Your task to perform on an android device: install app "ZOOM Cloud Meetings" Image 0: 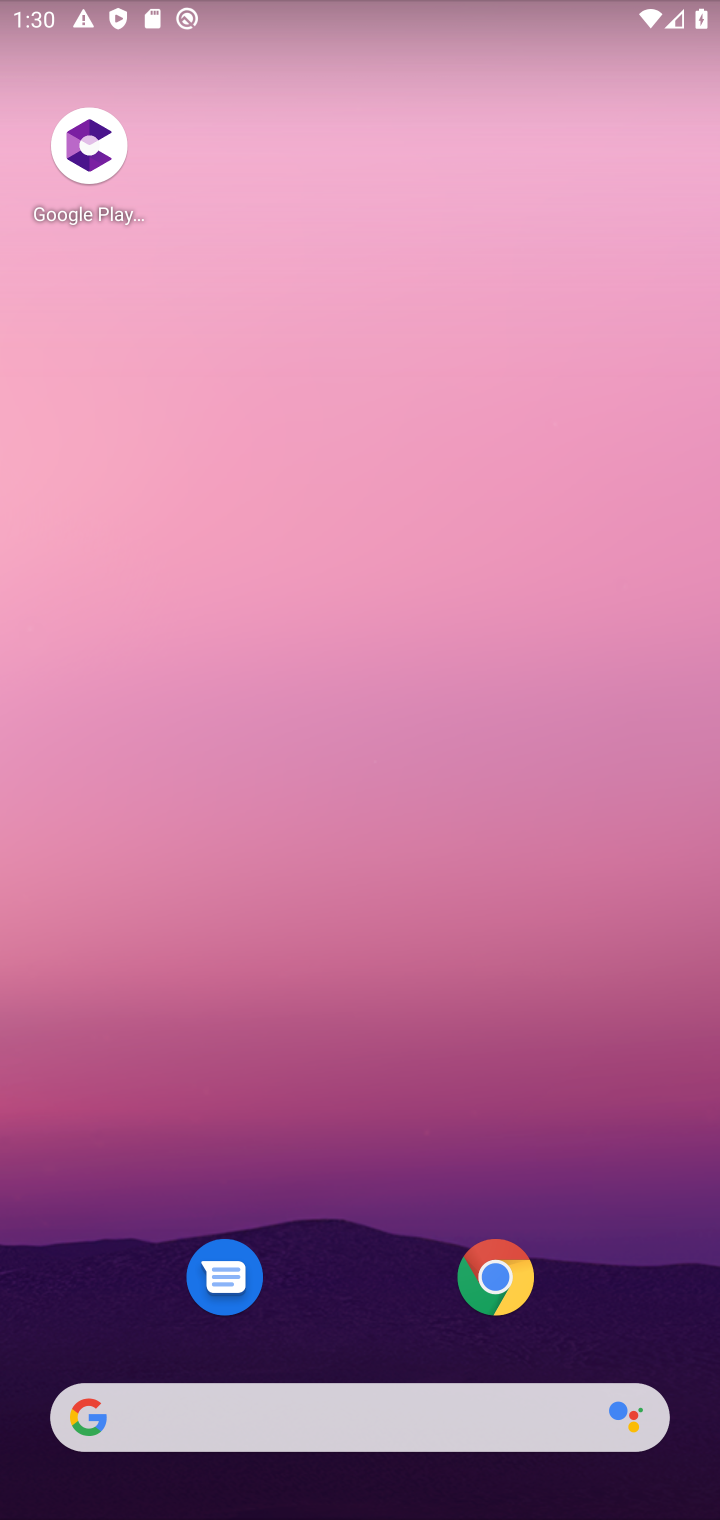
Step 0: press home button
Your task to perform on an android device: install app "ZOOM Cloud Meetings" Image 1: 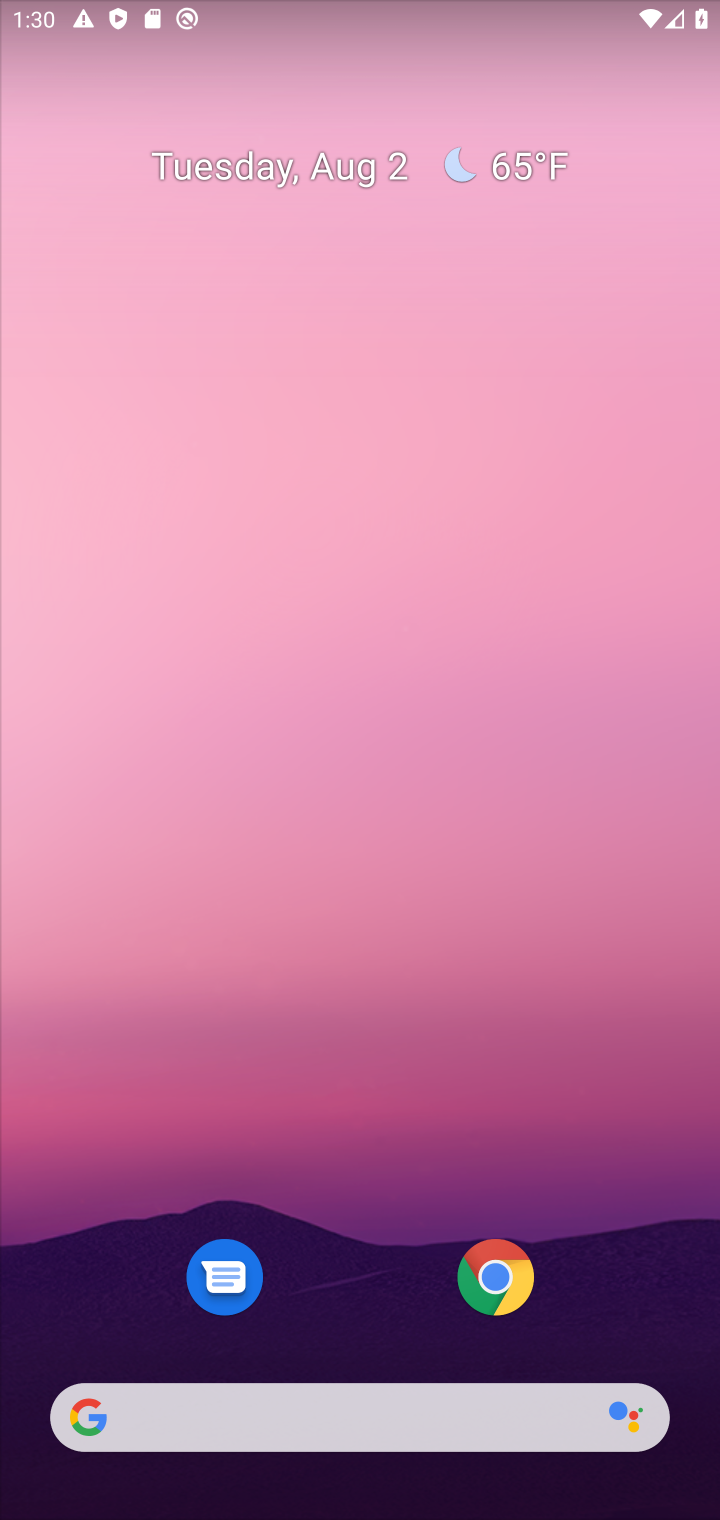
Step 1: drag from (267, 1403) to (375, 201)
Your task to perform on an android device: install app "ZOOM Cloud Meetings" Image 2: 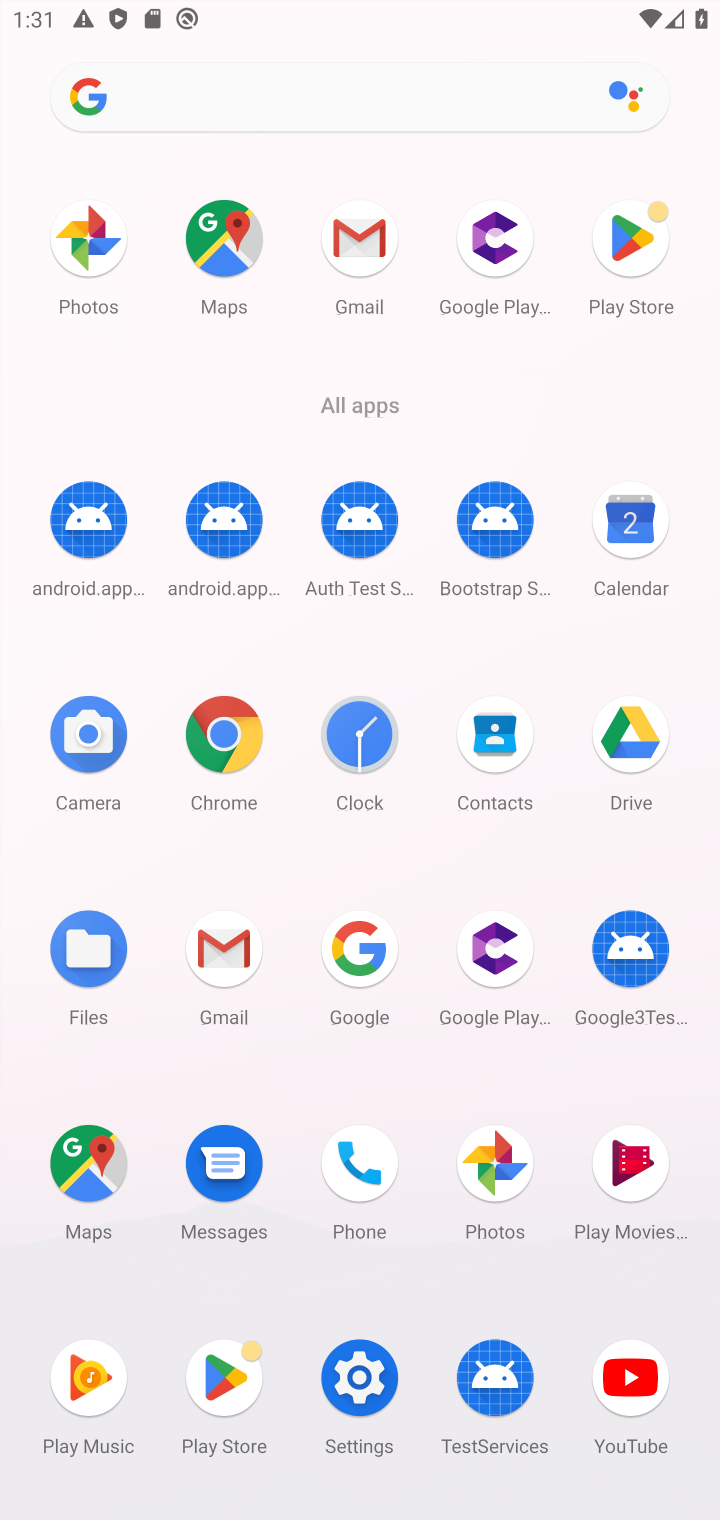
Step 2: click (618, 251)
Your task to perform on an android device: install app "ZOOM Cloud Meetings" Image 3: 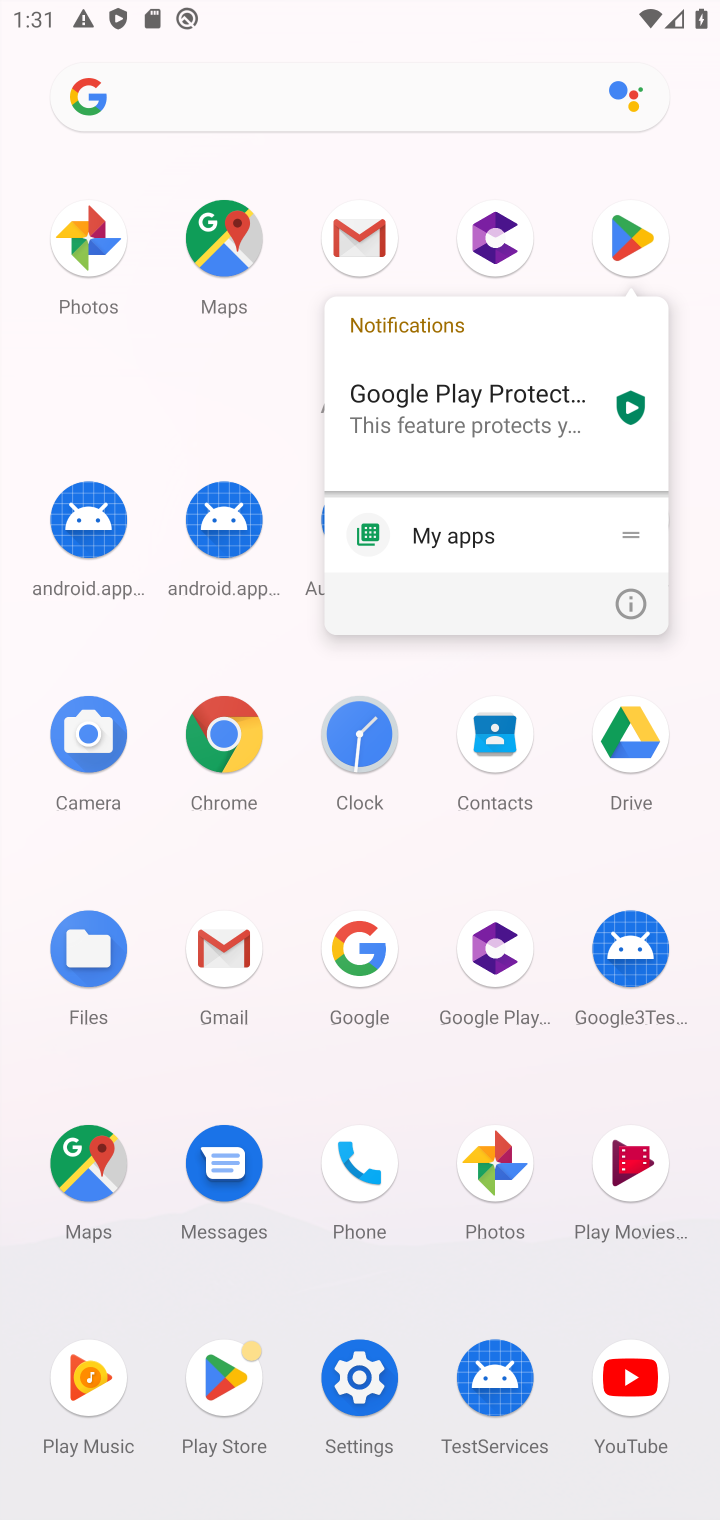
Step 3: click (618, 251)
Your task to perform on an android device: install app "ZOOM Cloud Meetings" Image 4: 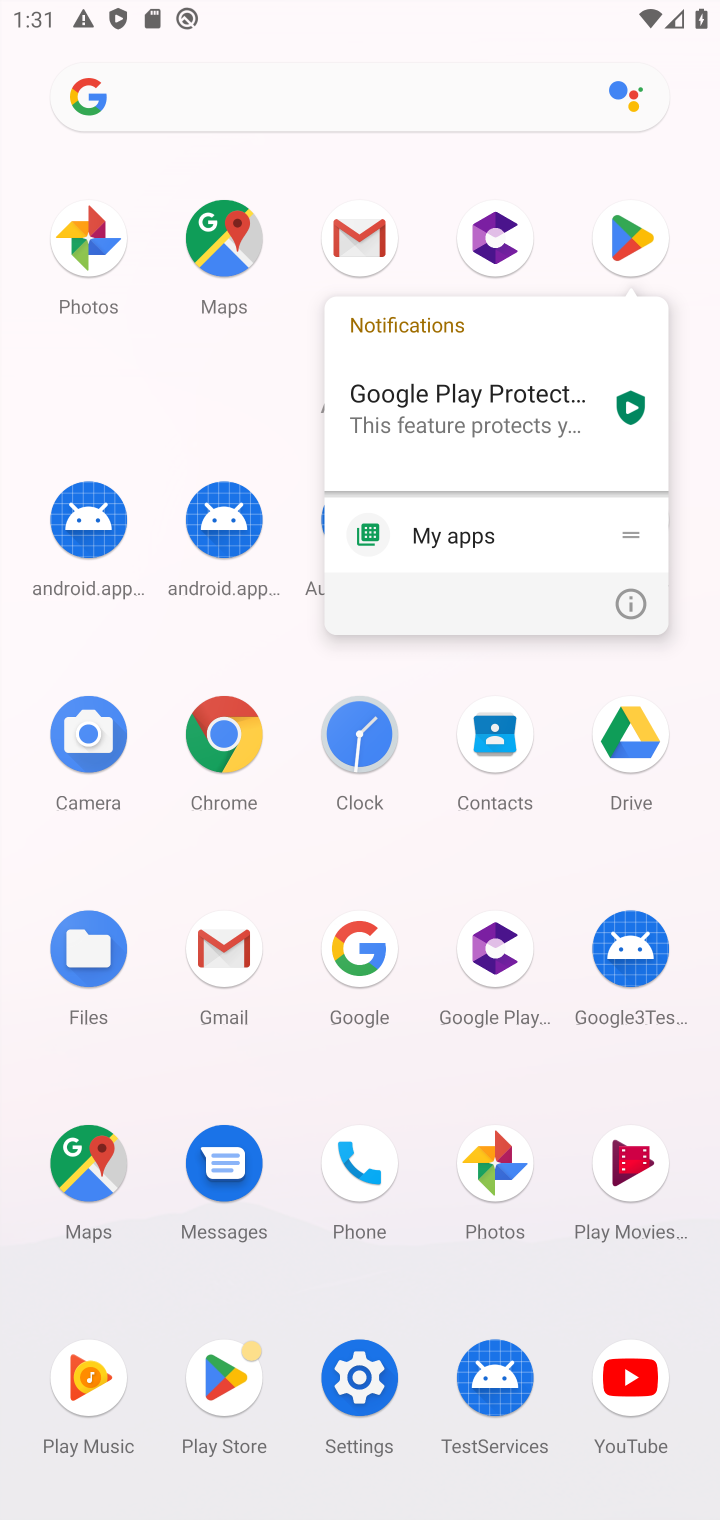
Step 4: click (622, 226)
Your task to perform on an android device: install app "ZOOM Cloud Meetings" Image 5: 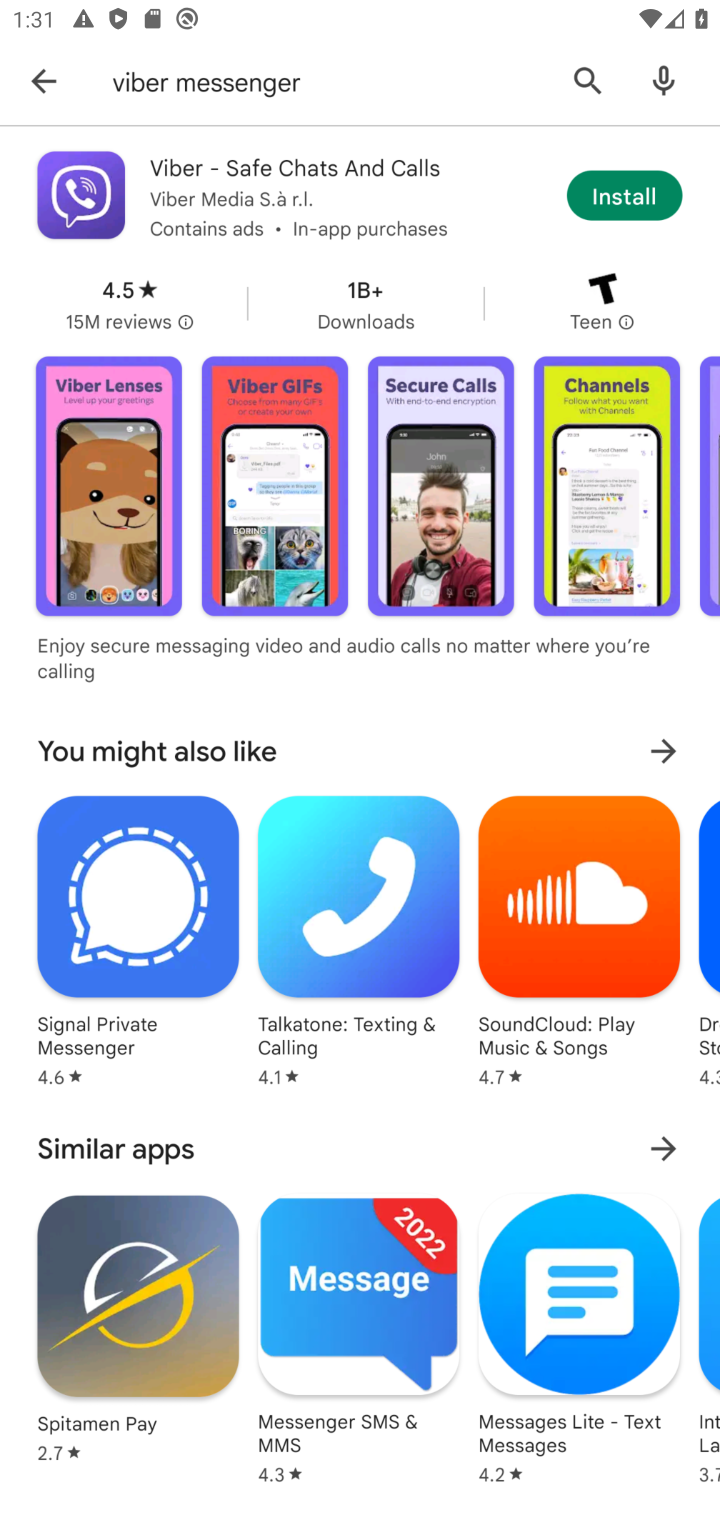
Step 5: click (639, 232)
Your task to perform on an android device: install app "ZOOM Cloud Meetings" Image 6: 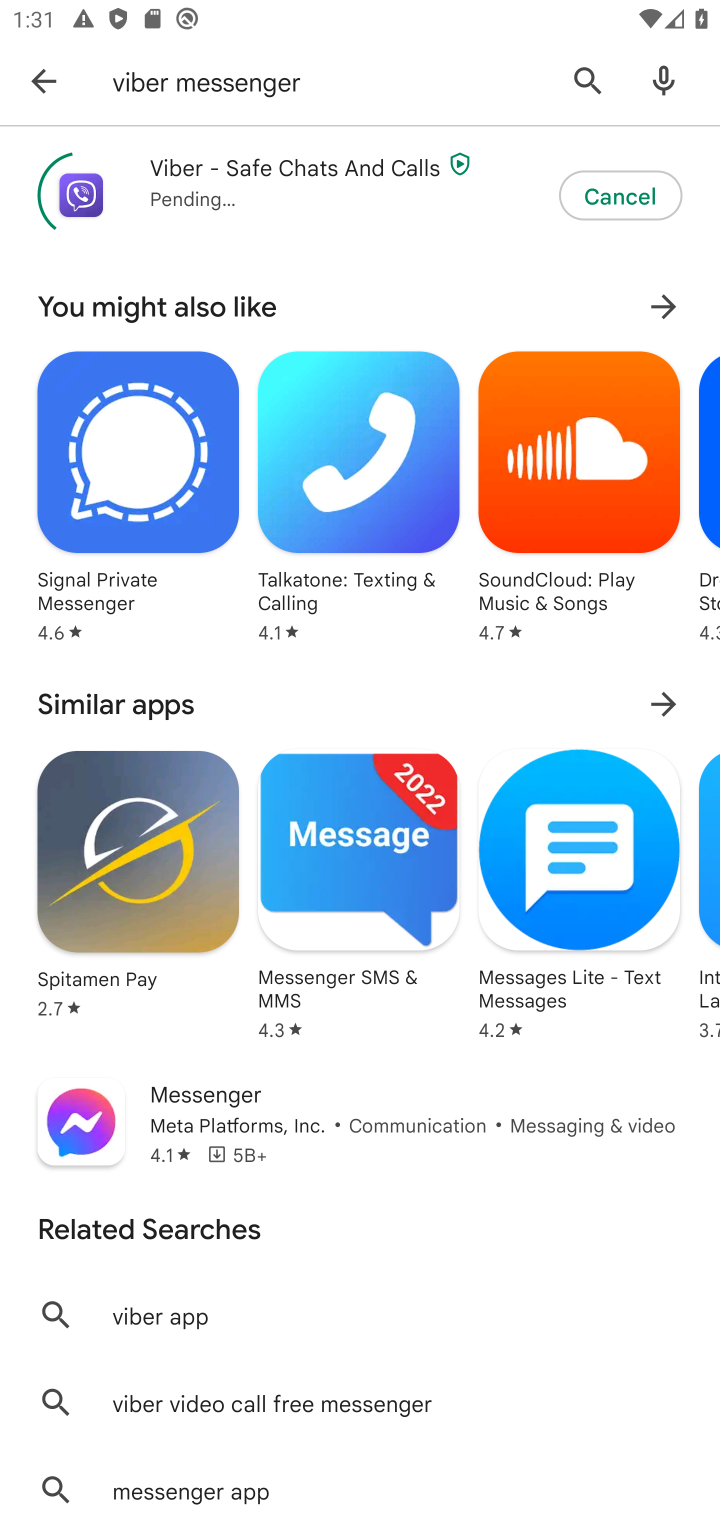
Step 6: click (625, 196)
Your task to perform on an android device: install app "ZOOM Cloud Meetings" Image 7: 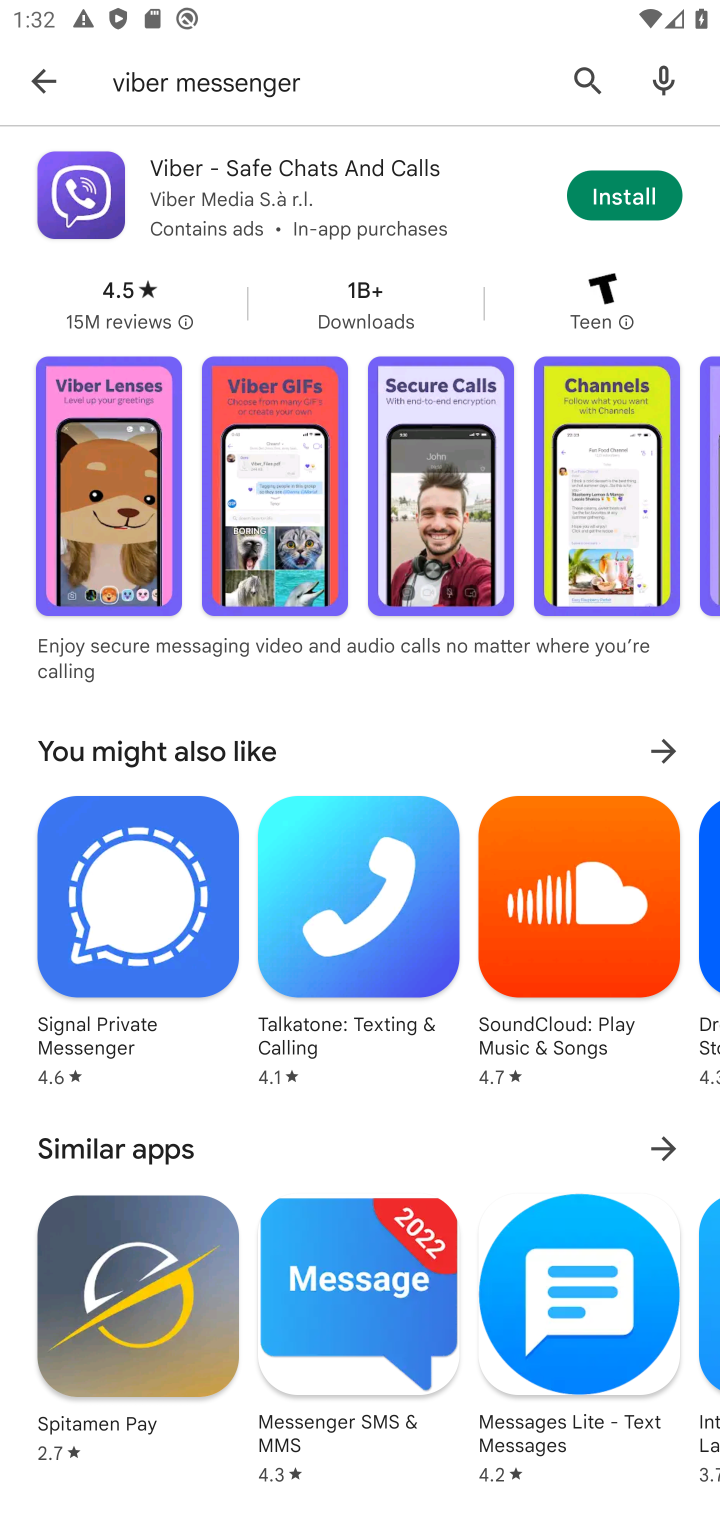
Step 7: click (587, 74)
Your task to perform on an android device: install app "ZOOM Cloud Meetings" Image 8: 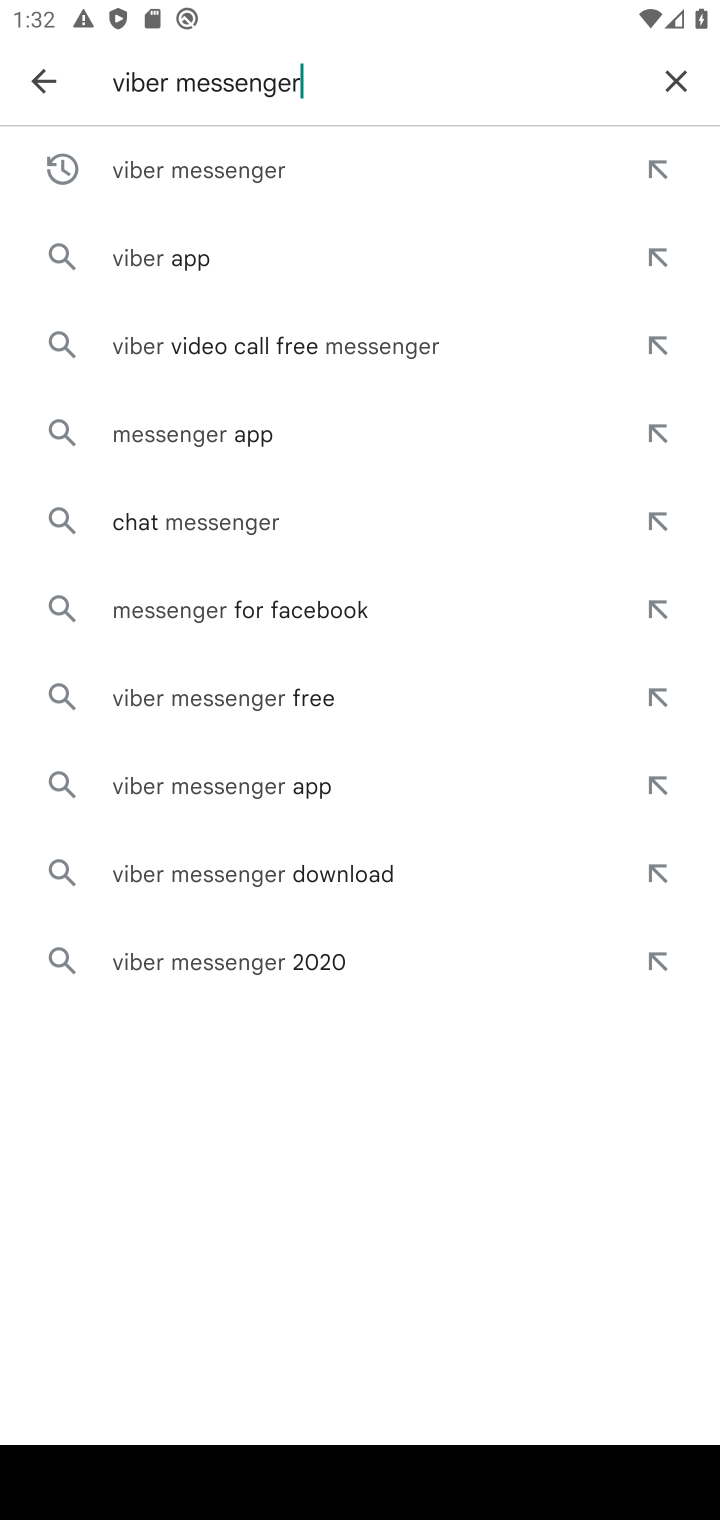
Step 8: click (687, 81)
Your task to perform on an android device: install app "ZOOM Cloud Meetings" Image 9: 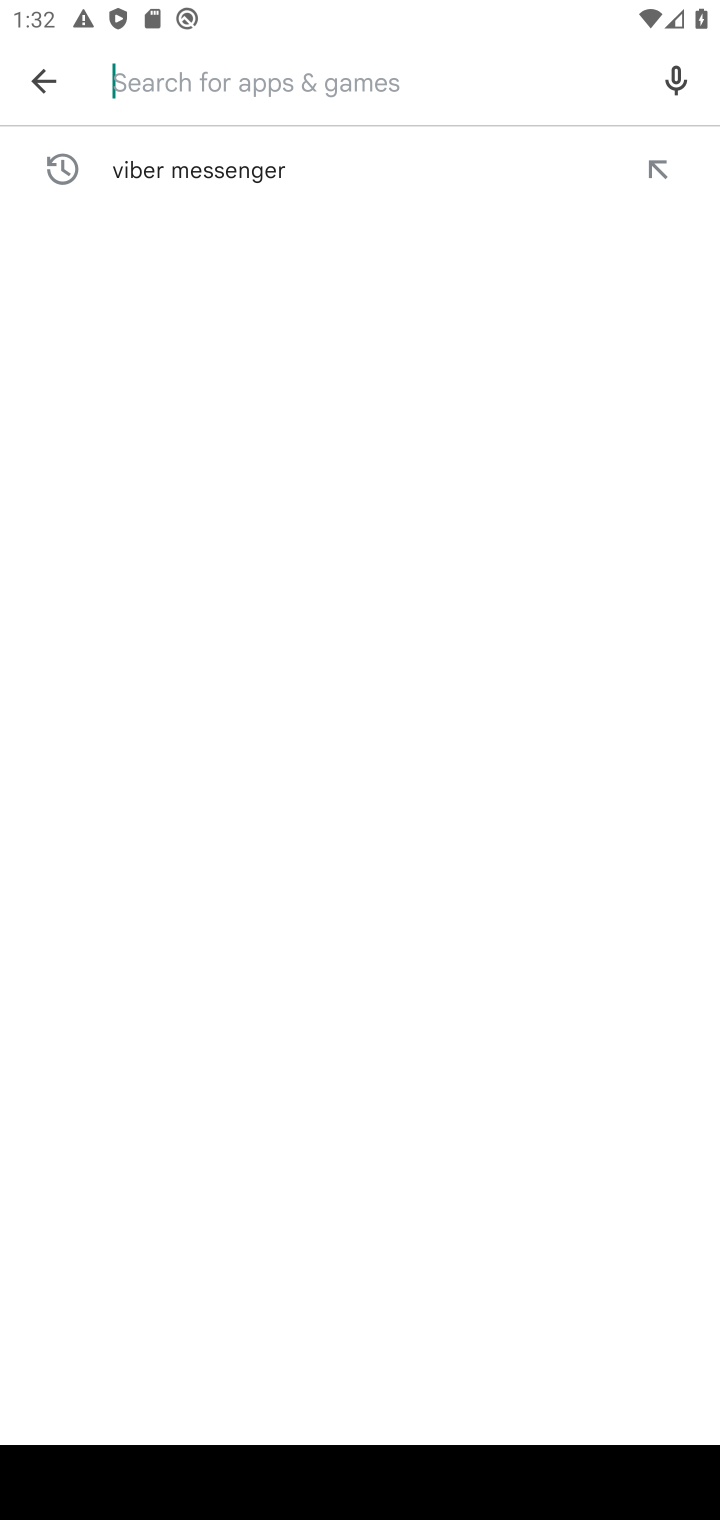
Step 9: click (672, 79)
Your task to perform on an android device: install app "ZOOM Cloud Meetings" Image 10: 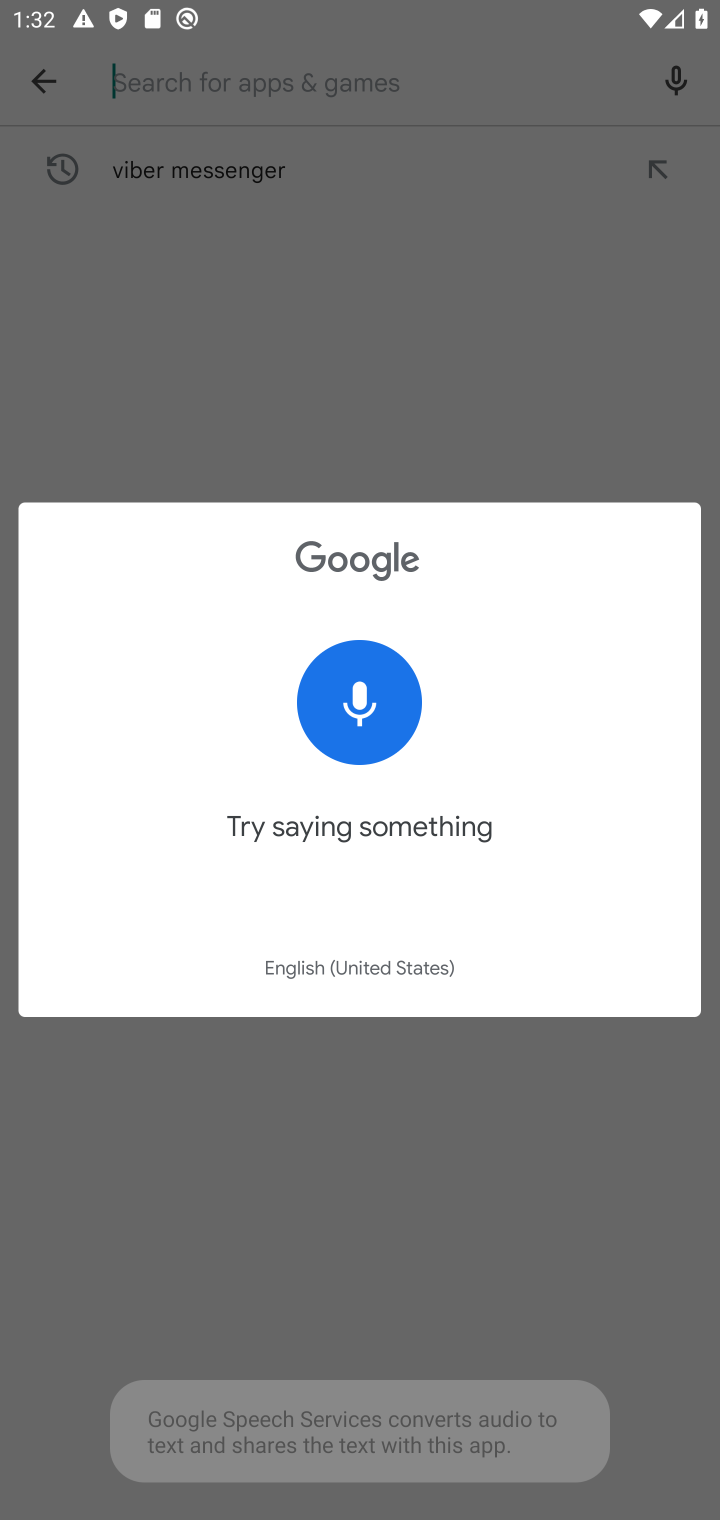
Step 10: type "ZOOM Cloud Meetings"
Your task to perform on an android device: install app "ZOOM Cloud Meetings" Image 11: 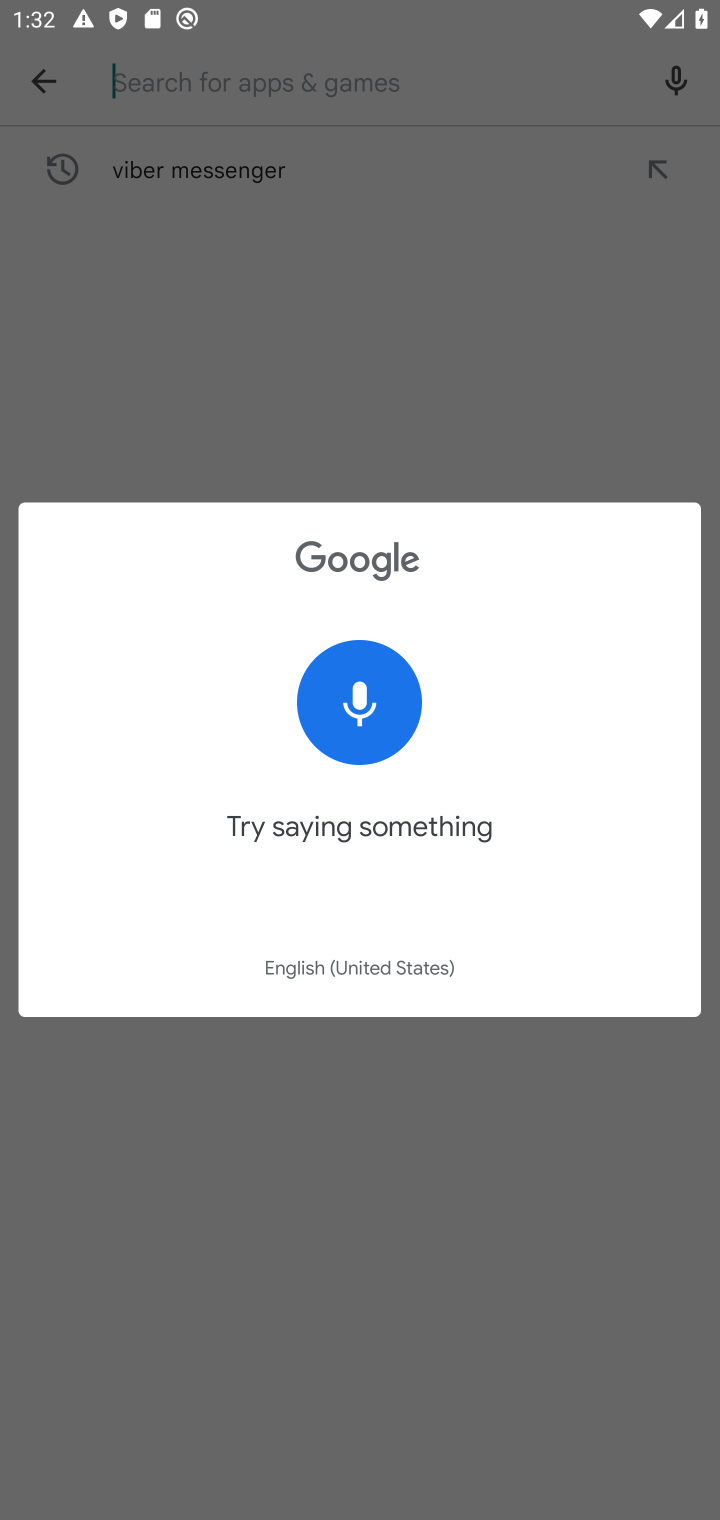
Step 11: click (354, 1146)
Your task to perform on an android device: install app "ZOOM Cloud Meetings" Image 12: 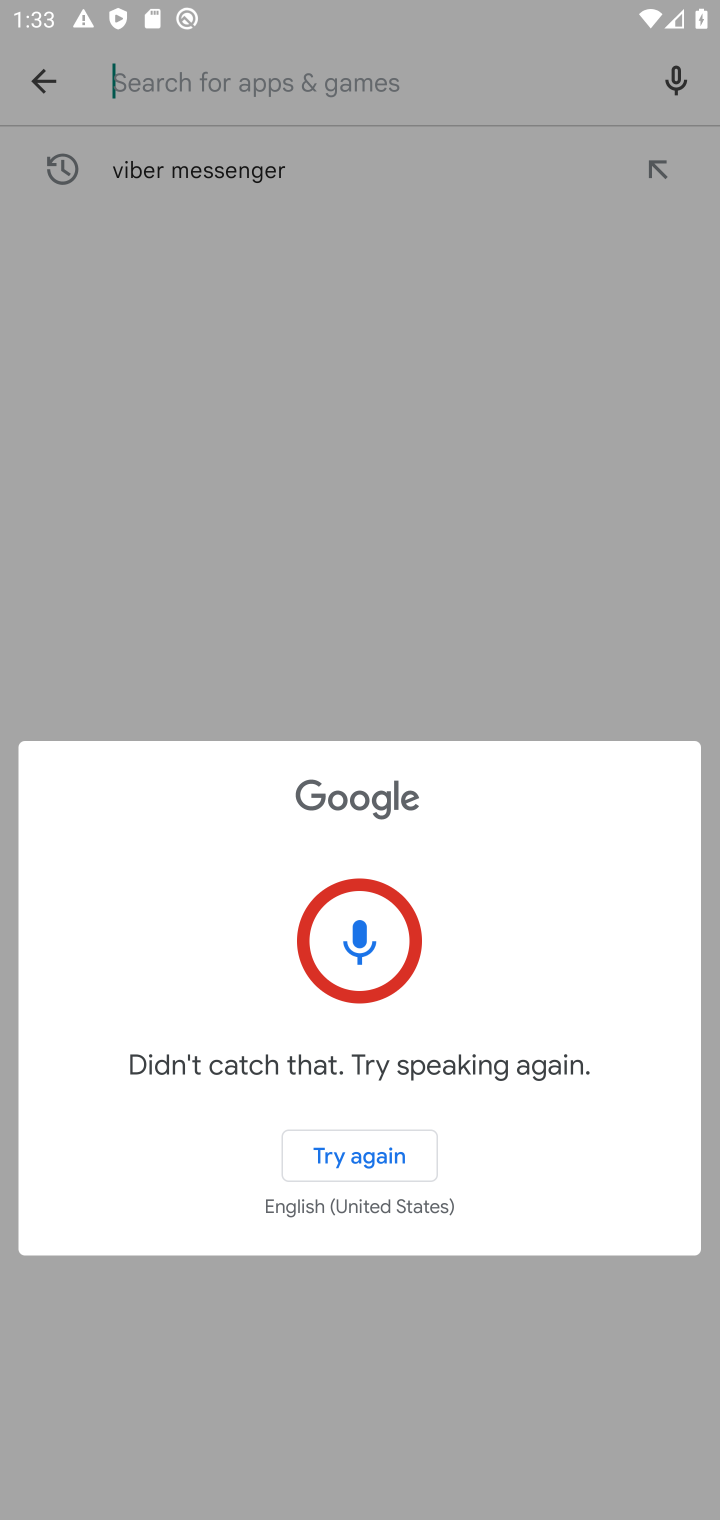
Step 12: click (421, 443)
Your task to perform on an android device: install app "ZOOM Cloud Meetings" Image 13: 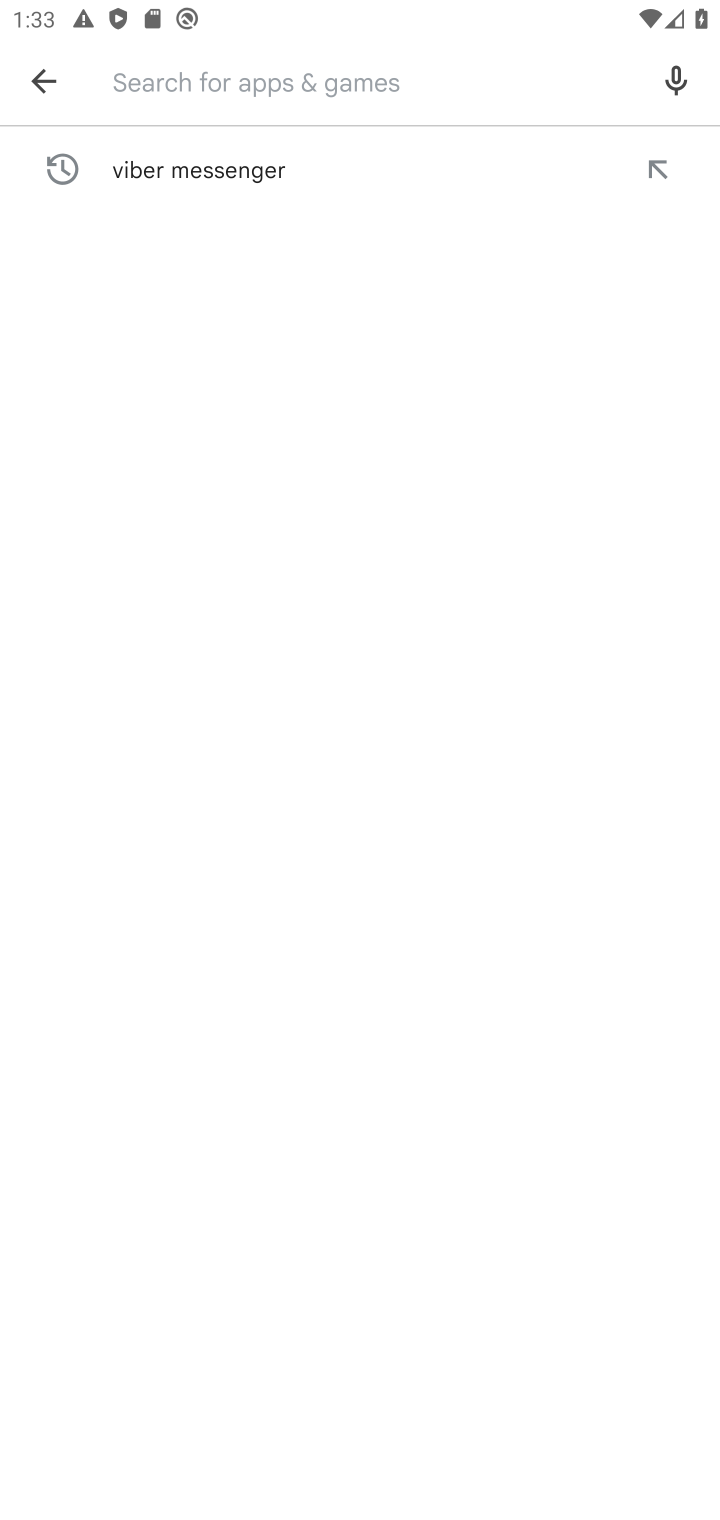
Step 13: type "ZOOM Cloud Meetings"
Your task to perform on an android device: install app "ZOOM Cloud Meetings" Image 14: 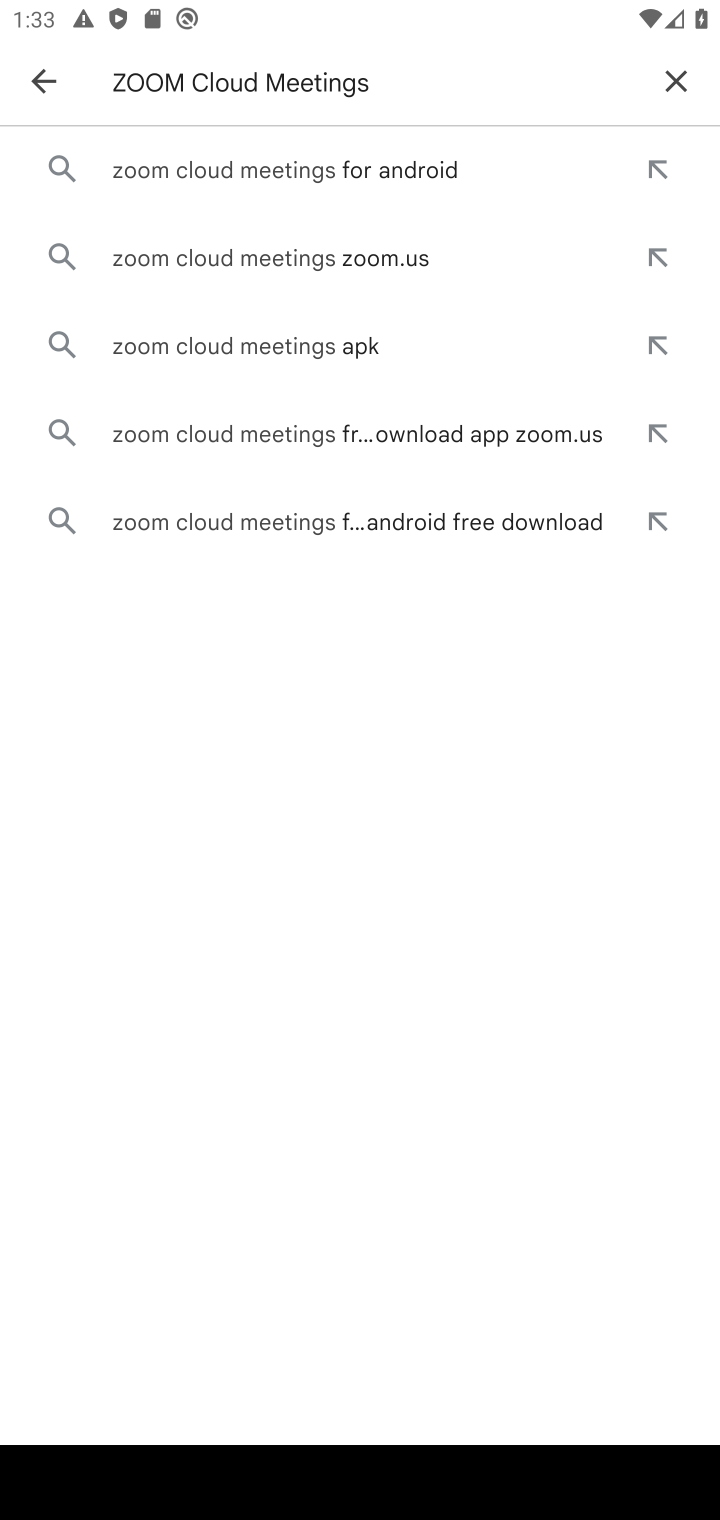
Step 14: click (211, 168)
Your task to perform on an android device: install app "ZOOM Cloud Meetings" Image 15: 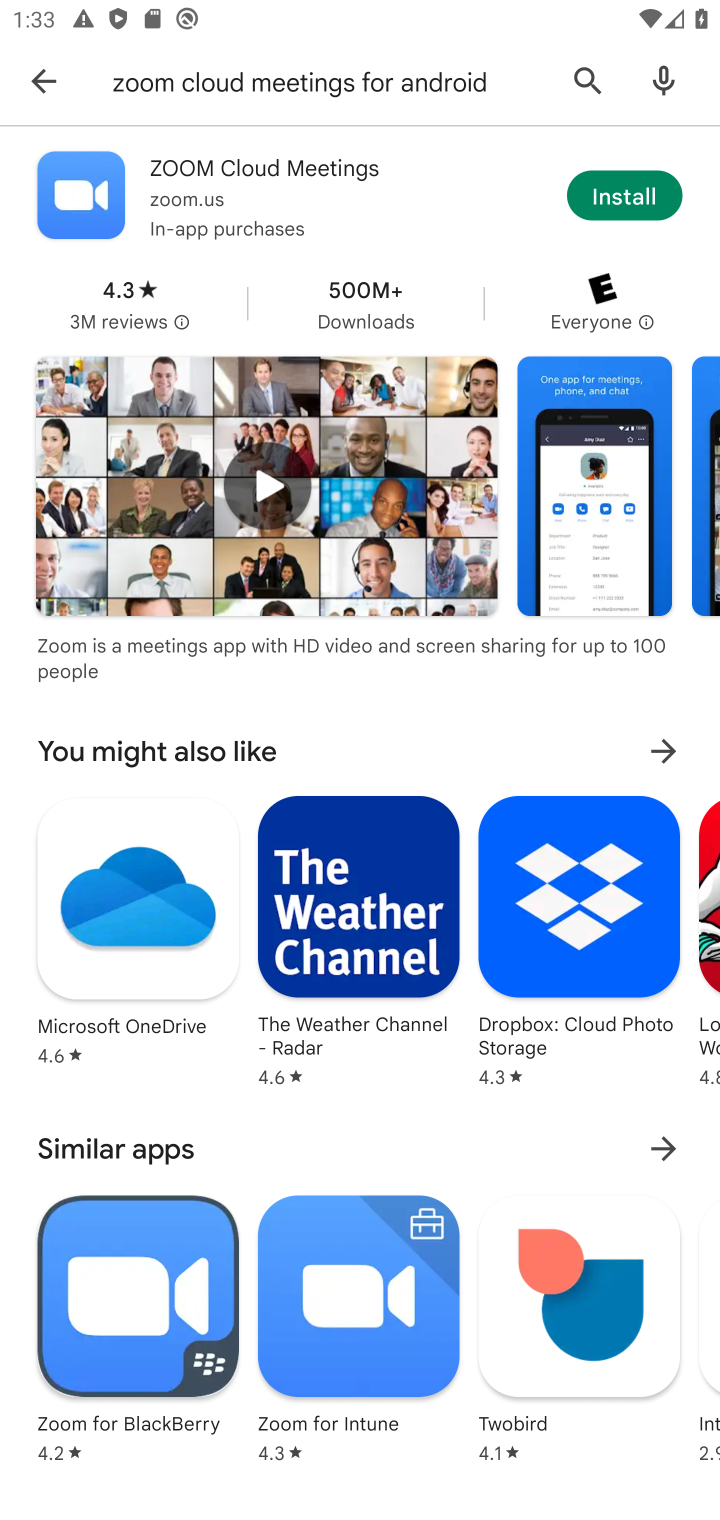
Step 15: click (606, 189)
Your task to perform on an android device: install app "ZOOM Cloud Meetings" Image 16: 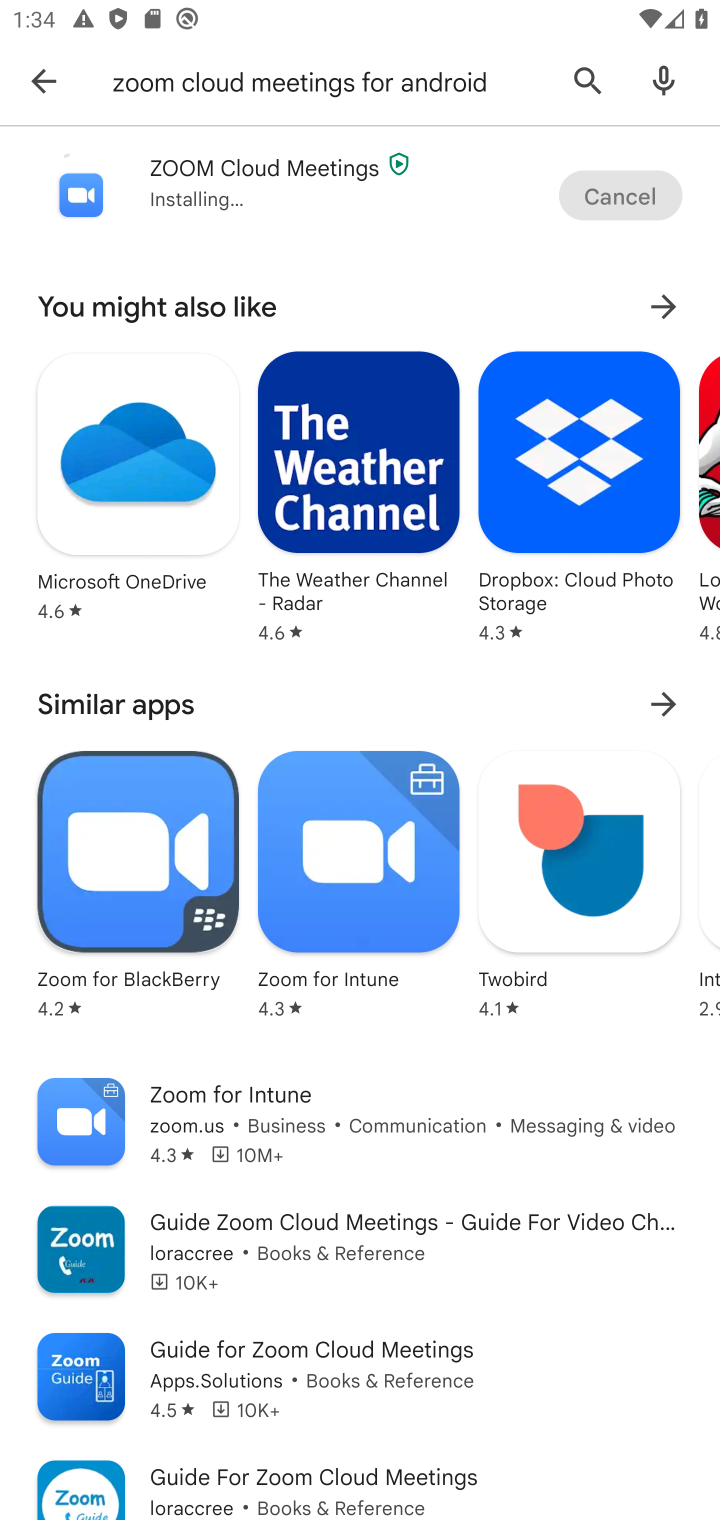
Step 16: task complete